Your task to perform on an android device: install app "Microsoft Outlook" Image 0: 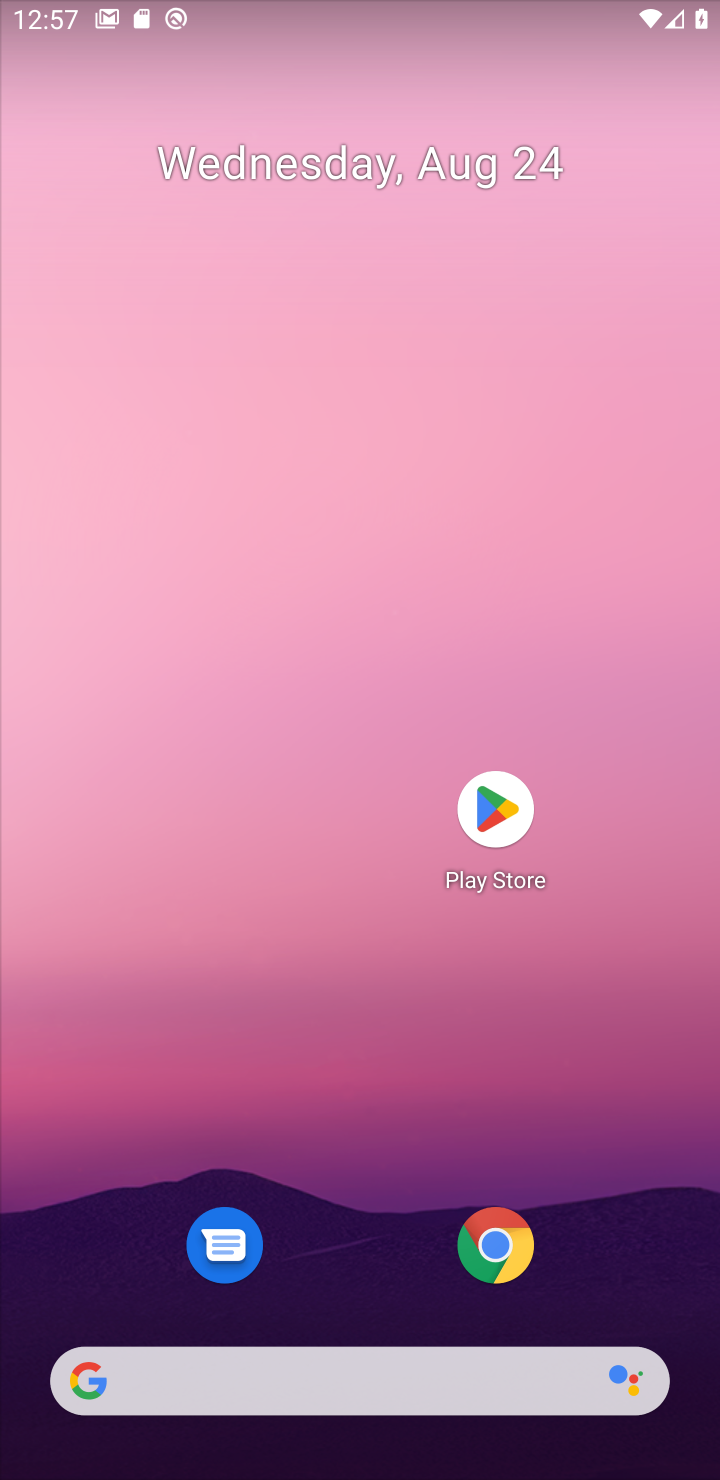
Step 0: click (500, 820)
Your task to perform on an android device: install app "Microsoft Outlook" Image 1: 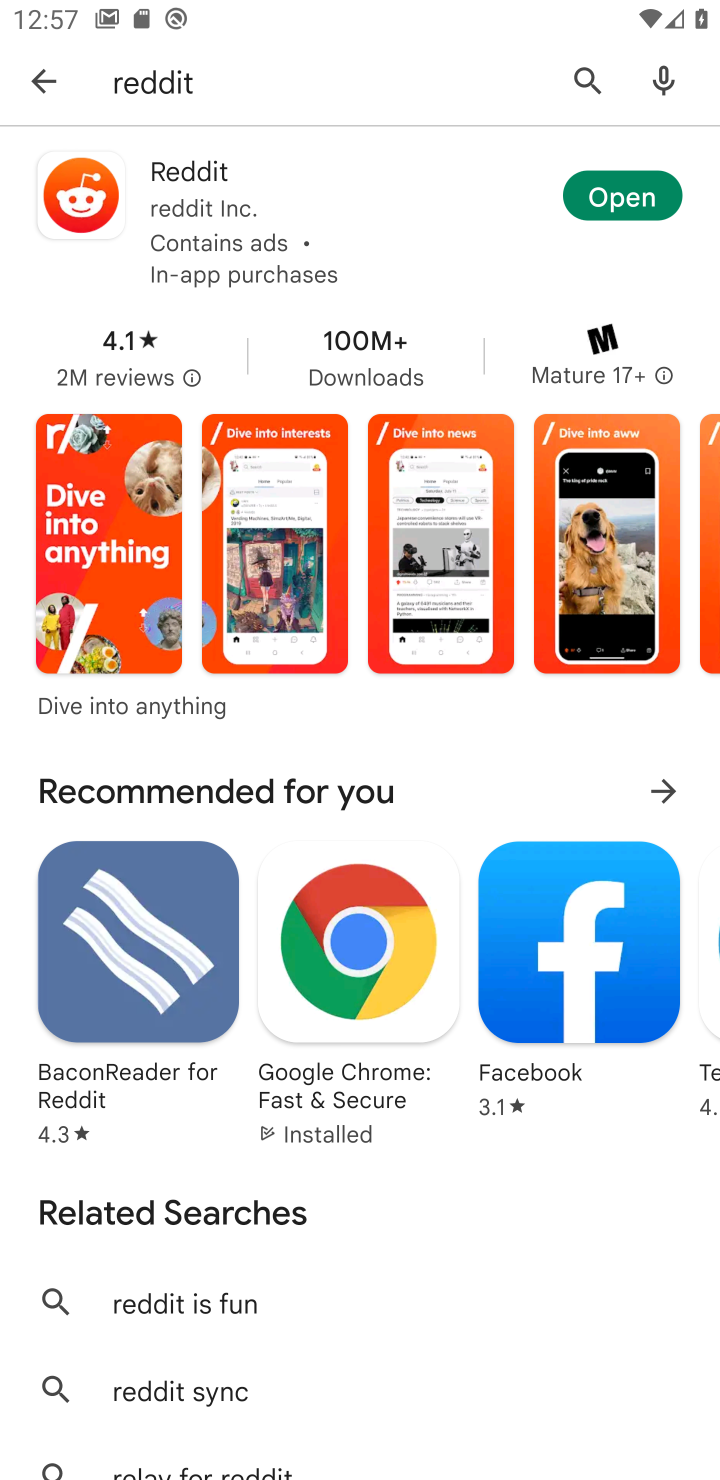
Step 1: click (578, 67)
Your task to perform on an android device: install app "Microsoft Outlook" Image 2: 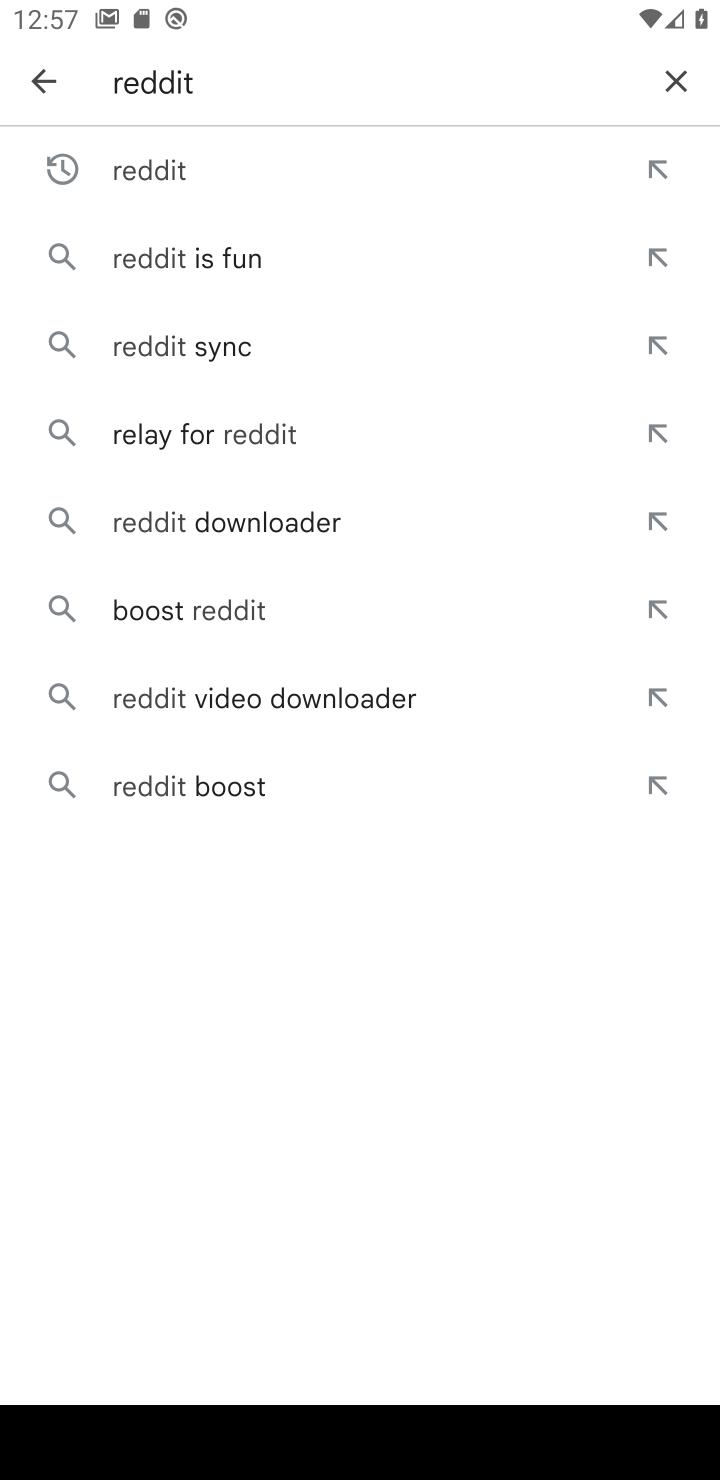
Step 2: click (675, 68)
Your task to perform on an android device: install app "Microsoft Outlook" Image 3: 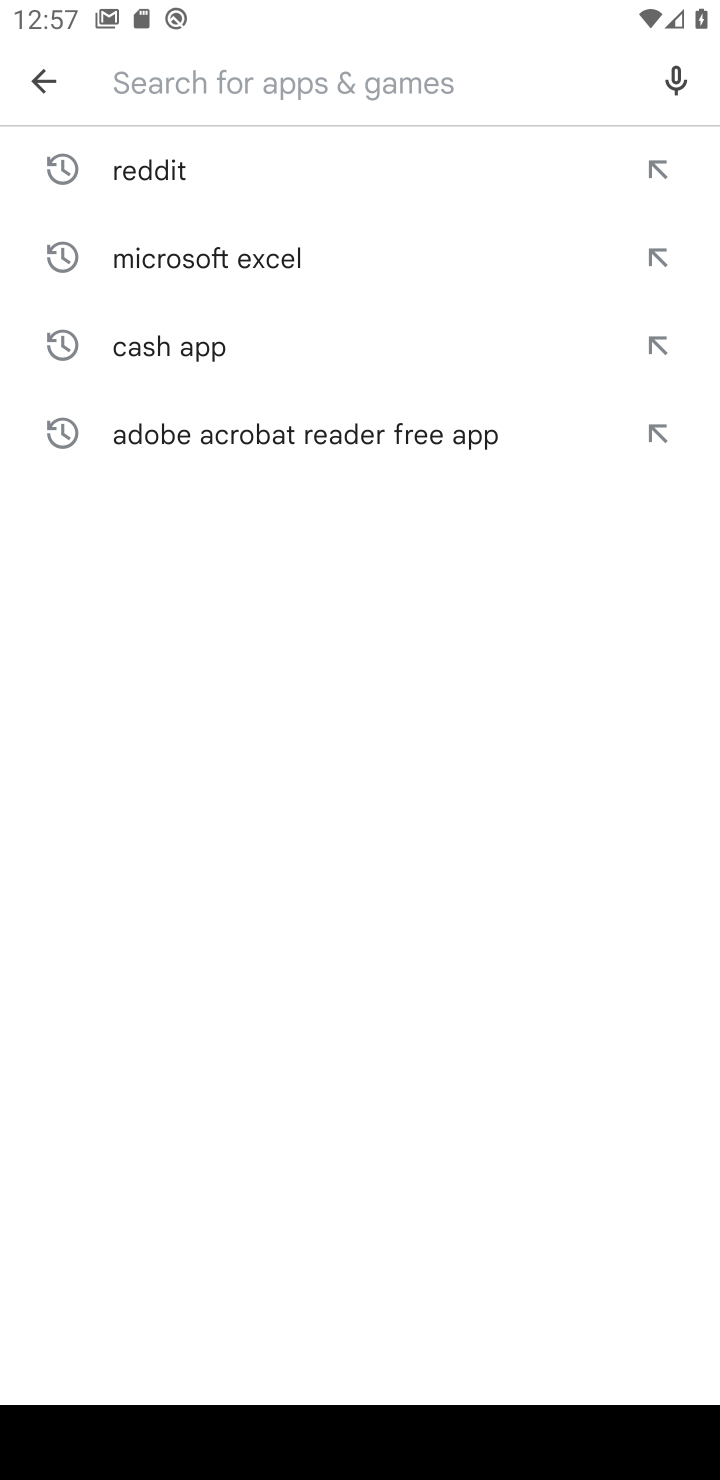
Step 3: type "Microsoft Outlook"
Your task to perform on an android device: install app "Microsoft Outlook" Image 4: 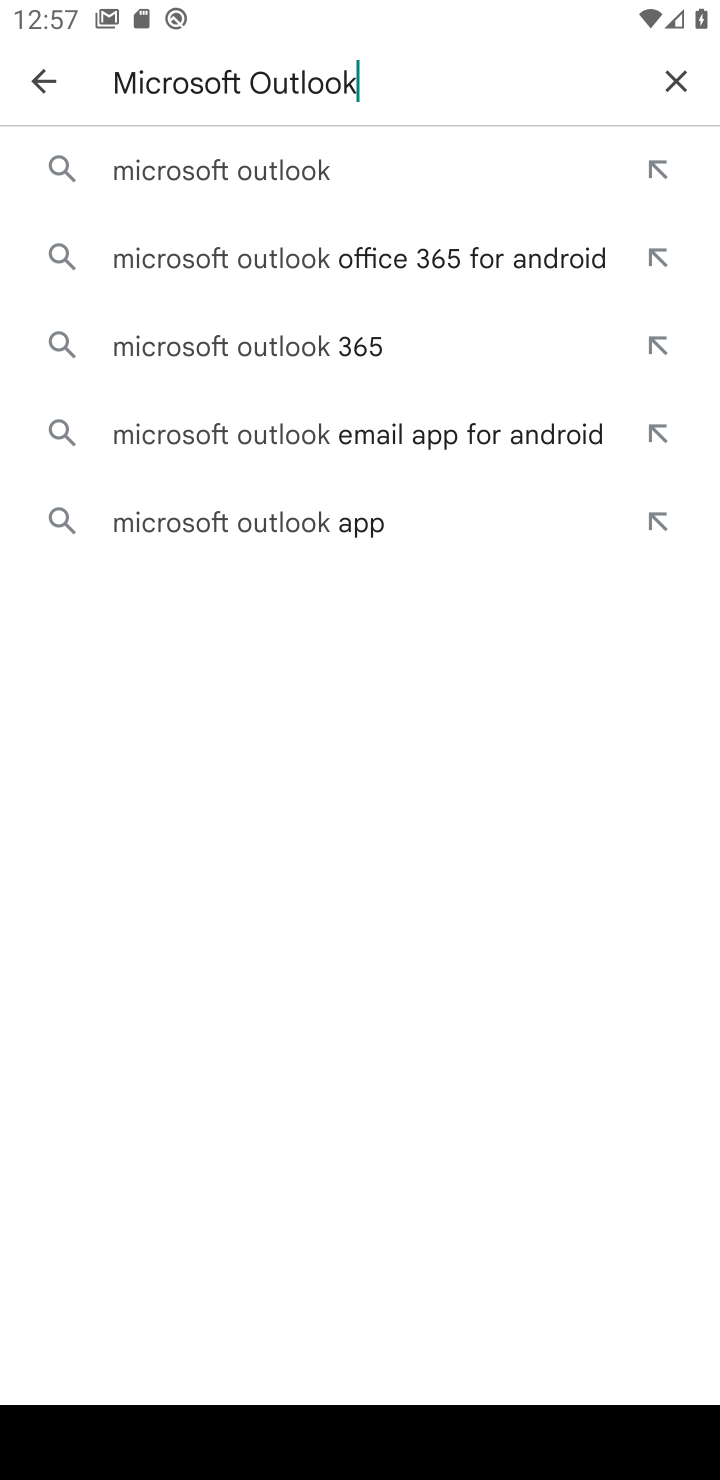
Step 4: click (312, 149)
Your task to perform on an android device: install app "Microsoft Outlook" Image 5: 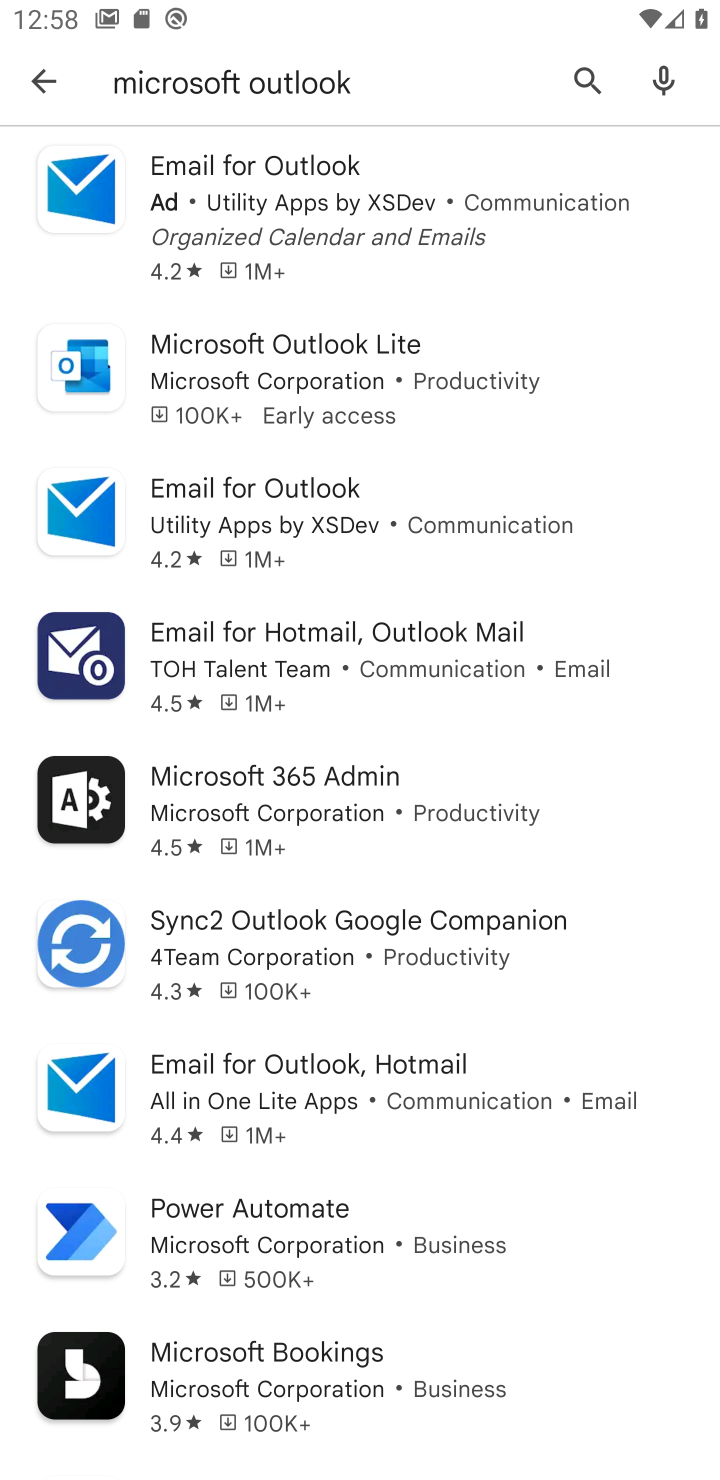
Step 5: task complete